Your task to perform on an android device: change notification settings in the gmail app Image 0: 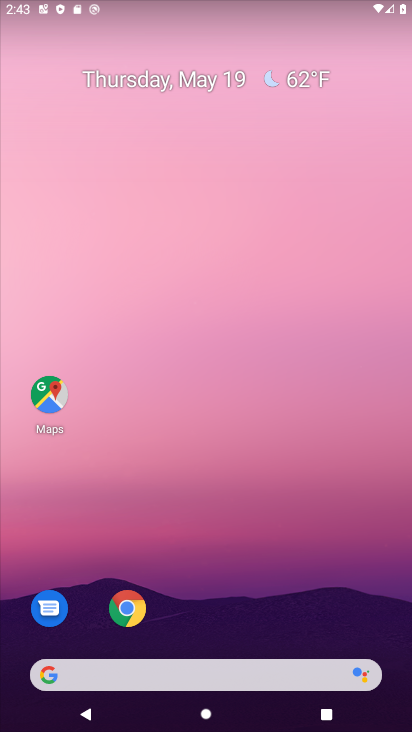
Step 0: drag from (302, 606) to (228, 94)
Your task to perform on an android device: change notification settings in the gmail app Image 1: 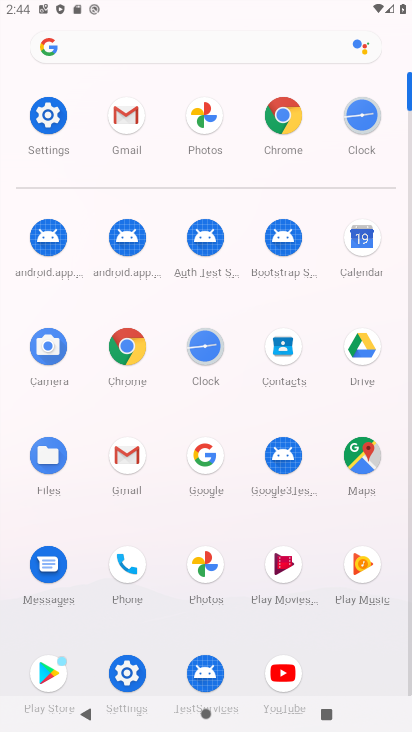
Step 1: click (142, 455)
Your task to perform on an android device: change notification settings in the gmail app Image 2: 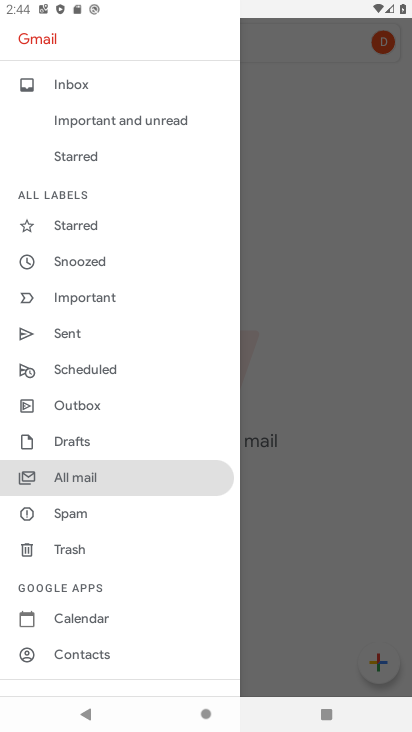
Step 2: drag from (124, 564) to (110, 221)
Your task to perform on an android device: change notification settings in the gmail app Image 3: 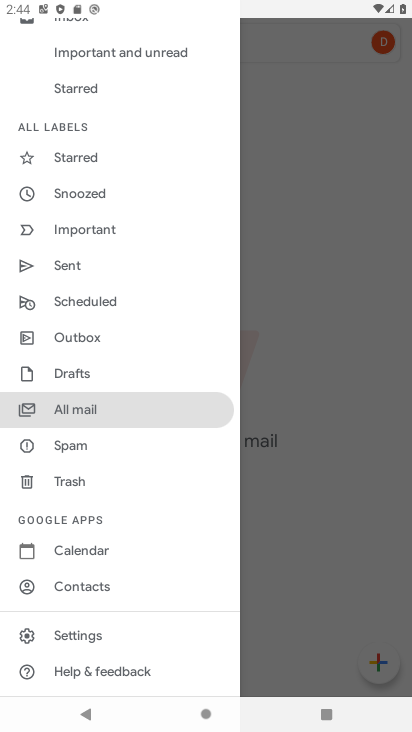
Step 3: click (129, 640)
Your task to perform on an android device: change notification settings in the gmail app Image 4: 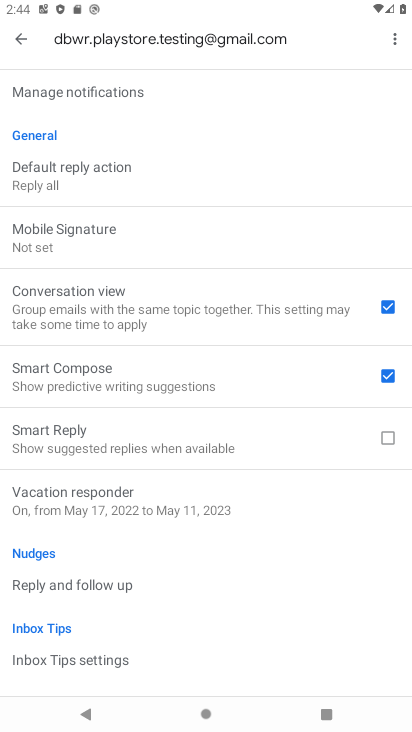
Step 4: drag from (120, 364) to (137, 724)
Your task to perform on an android device: change notification settings in the gmail app Image 5: 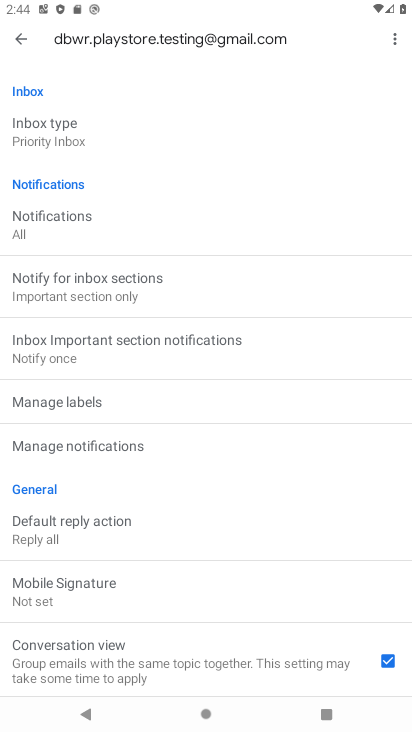
Step 5: click (86, 437)
Your task to perform on an android device: change notification settings in the gmail app Image 6: 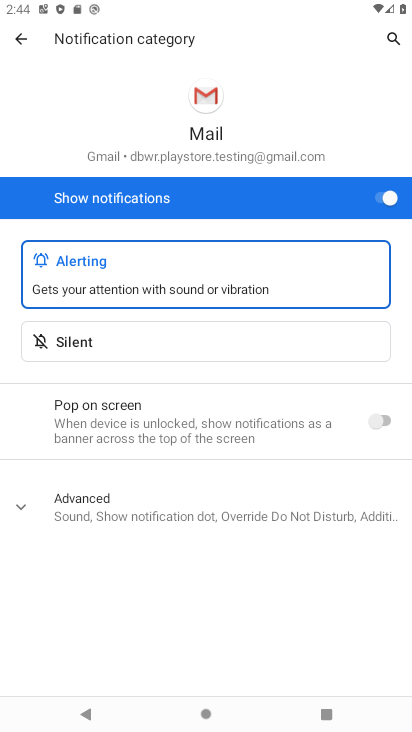
Step 6: click (337, 219)
Your task to perform on an android device: change notification settings in the gmail app Image 7: 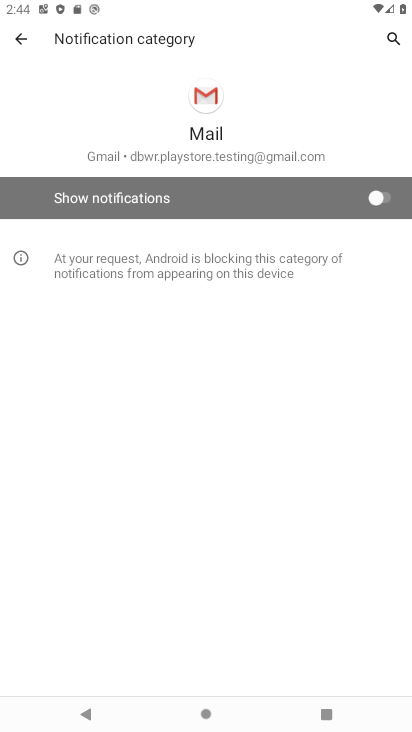
Step 7: task complete